Your task to perform on an android device: turn on the 24-hour format for clock Image 0: 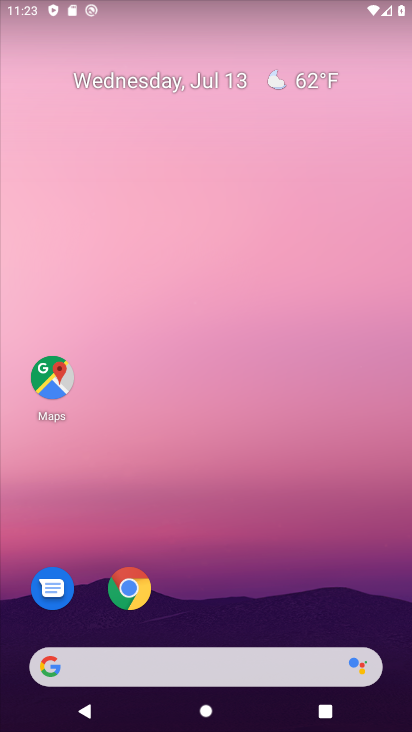
Step 0: drag from (217, 670) to (198, 239)
Your task to perform on an android device: turn on the 24-hour format for clock Image 1: 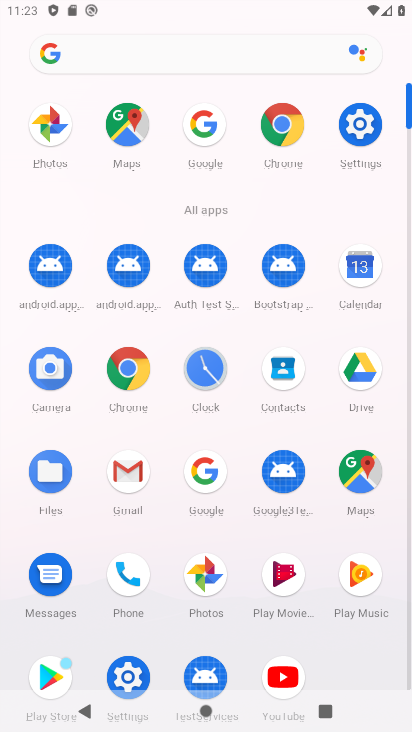
Step 1: click (214, 372)
Your task to perform on an android device: turn on the 24-hour format for clock Image 2: 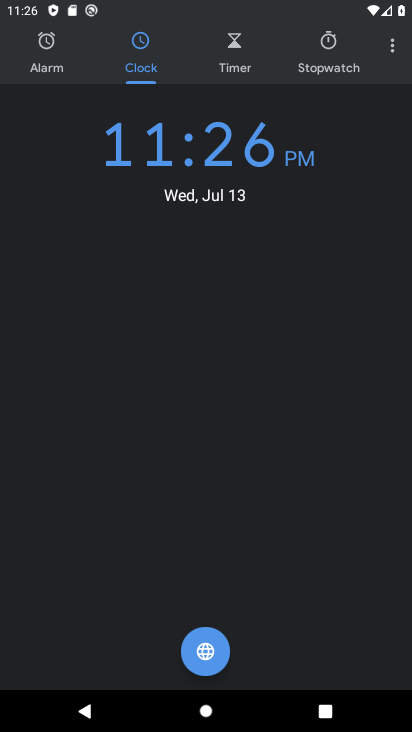
Step 2: click (384, 48)
Your task to perform on an android device: turn on the 24-hour format for clock Image 3: 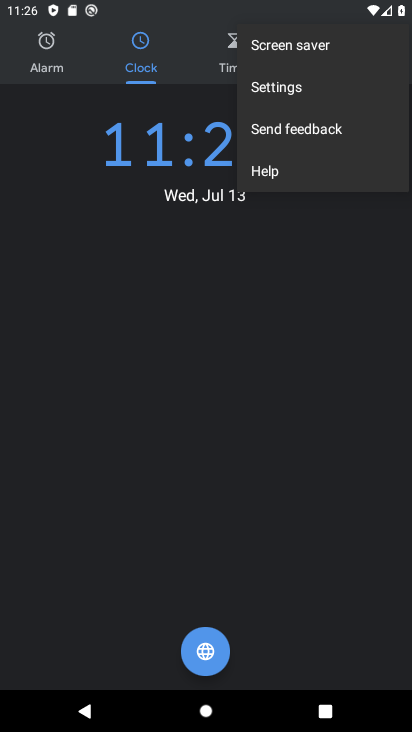
Step 3: click (294, 89)
Your task to perform on an android device: turn on the 24-hour format for clock Image 4: 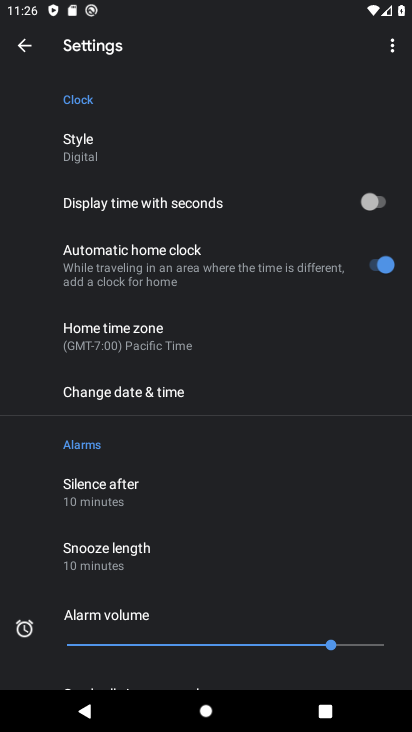
Step 4: click (109, 393)
Your task to perform on an android device: turn on the 24-hour format for clock Image 5: 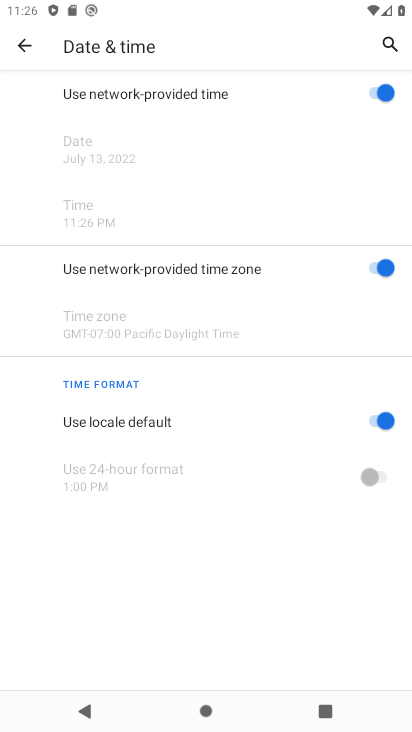
Step 5: click (378, 416)
Your task to perform on an android device: turn on the 24-hour format for clock Image 6: 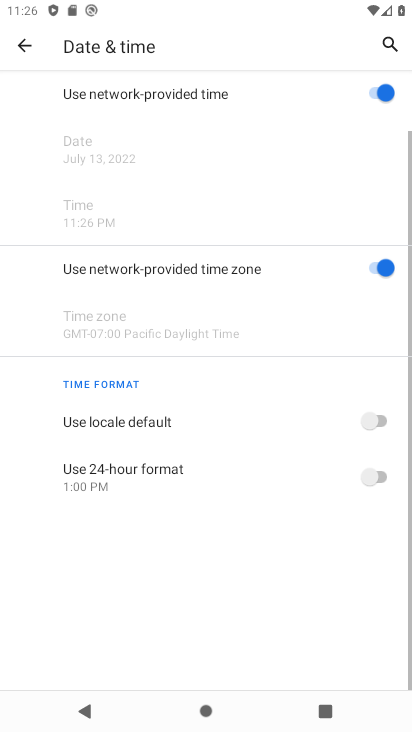
Step 6: click (382, 474)
Your task to perform on an android device: turn on the 24-hour format for clock Image 7: 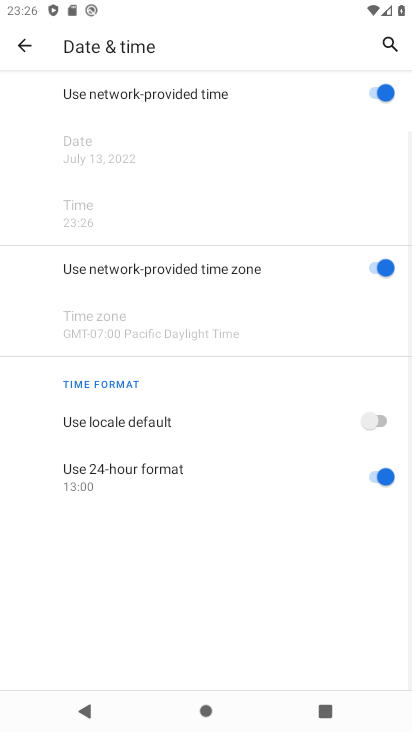
Step 7: task complete